Your task to perform on an android device: open app "Facebook Messenger" (install if not already installed) Image 0: 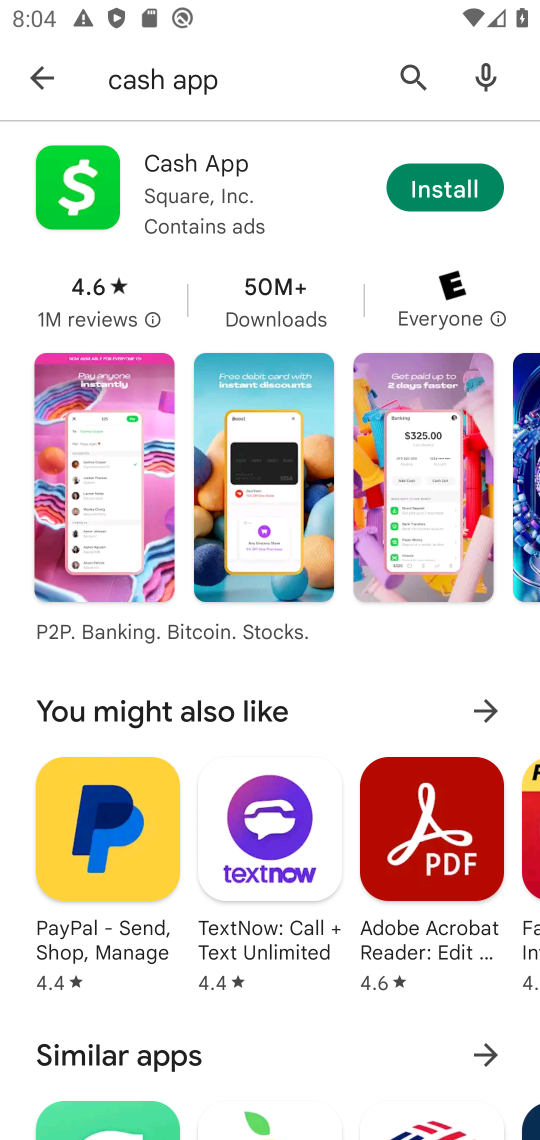
Step 0: press home button
Your task to perform on an android device: open app "Facebook Messenger" (install if not already installed) Image 1: 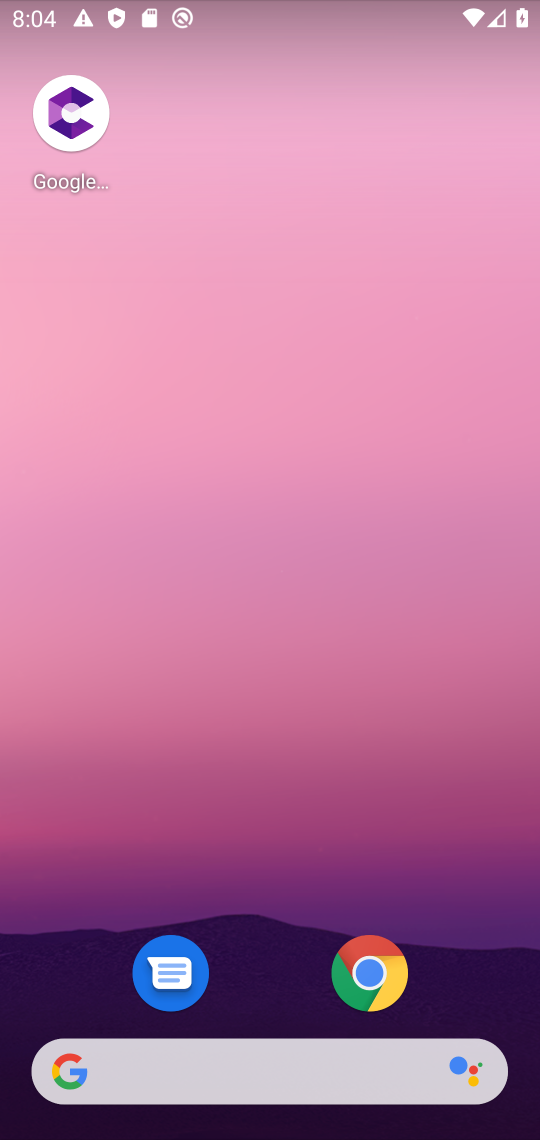
Step 1: drag from (343, 994) to (370, 112)
Your task to perform on an android device: open app "Facebook Messenger" (install if not already installed) Image 2: 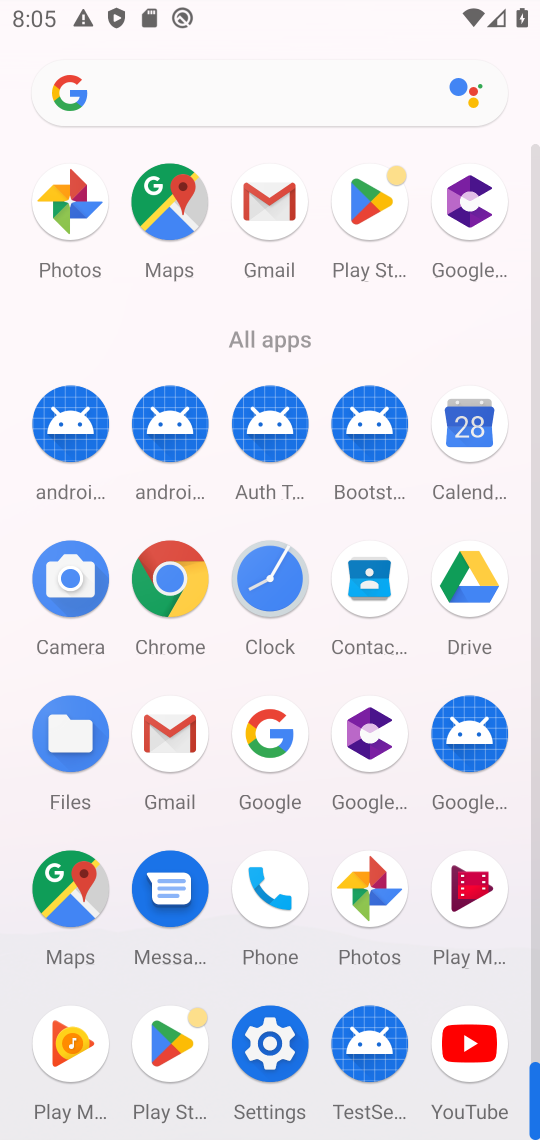
Step 2: click (366, 230)
Your task to perform on an android device: open app "Facebook Messenger" (install if not already installed) Image 3: 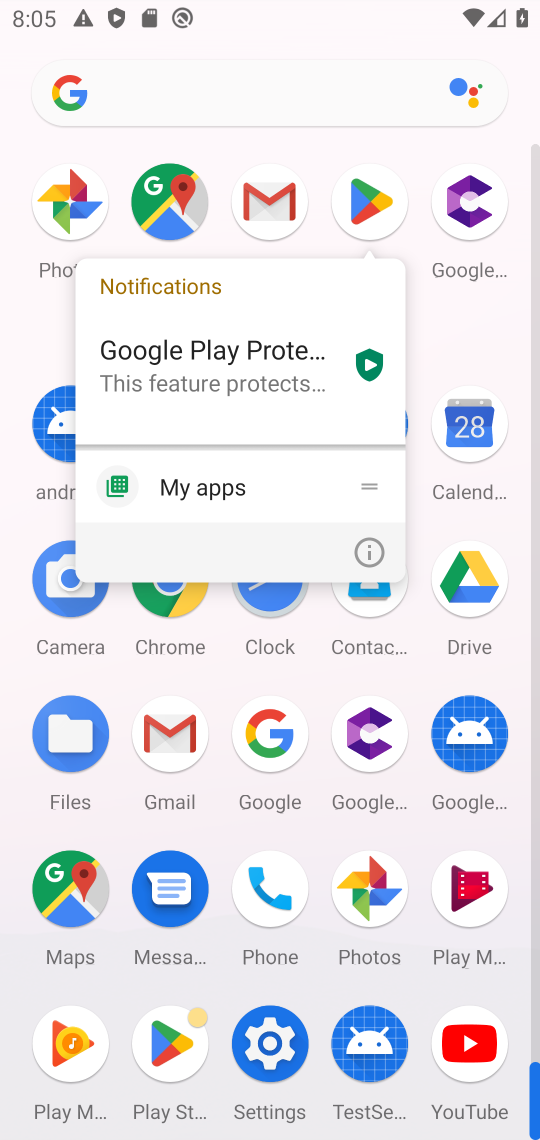
Step 3: click (367, 217)
Your task to perform on an android device: open app "Facebook Messenger" (install if not already installed) Image 4: 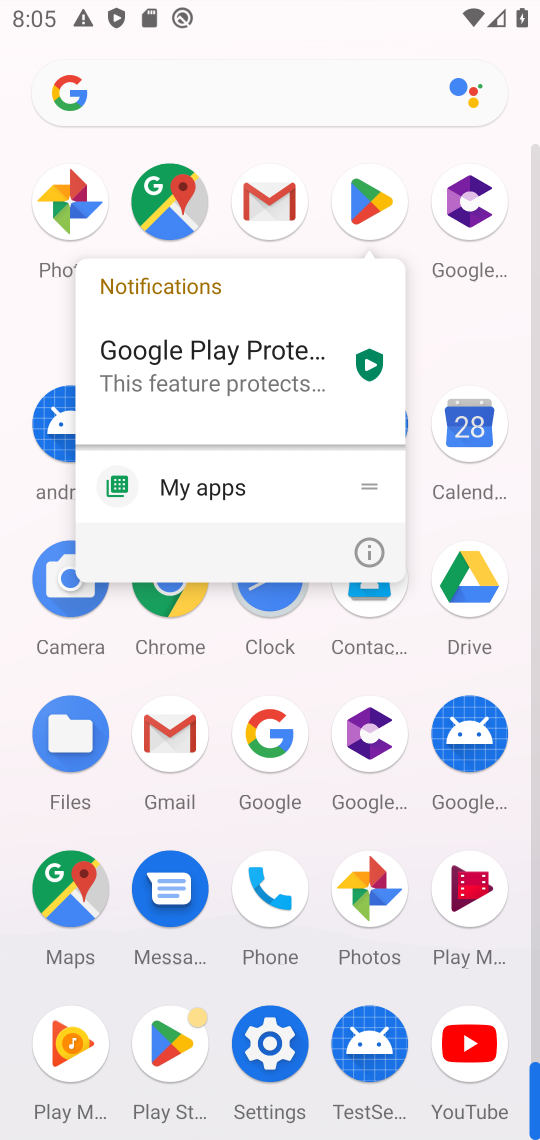
Step 4: click (377, 188)
Your task to perform on an android device: open app "Facebook Messenger" (install if not already installed) Image 5: 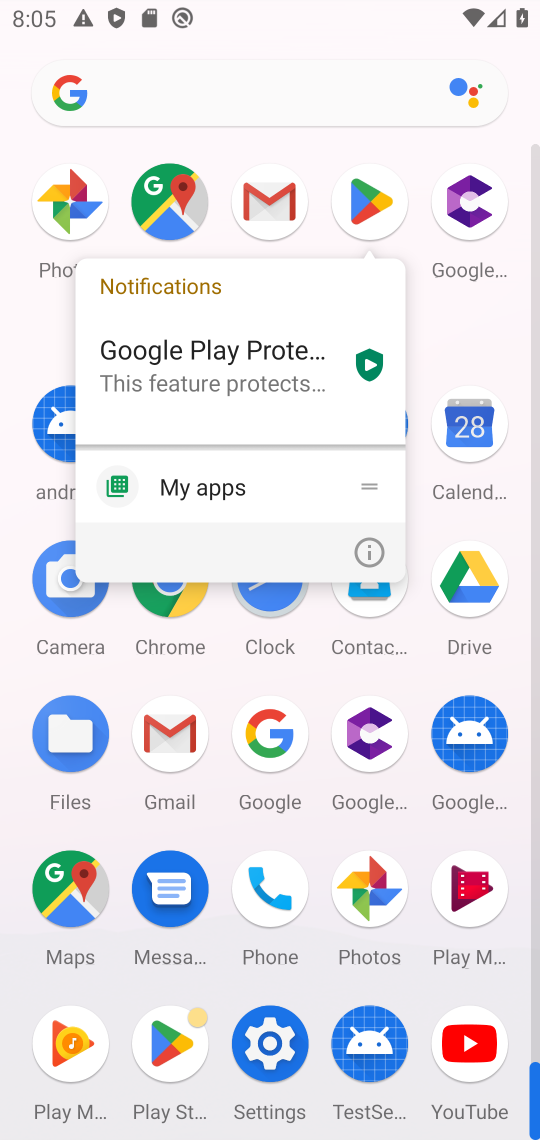
Step 5: click (376, 194)
Your task to perform on an android device: open app "Facebook Messenger" (install if not already installed) Image 6: 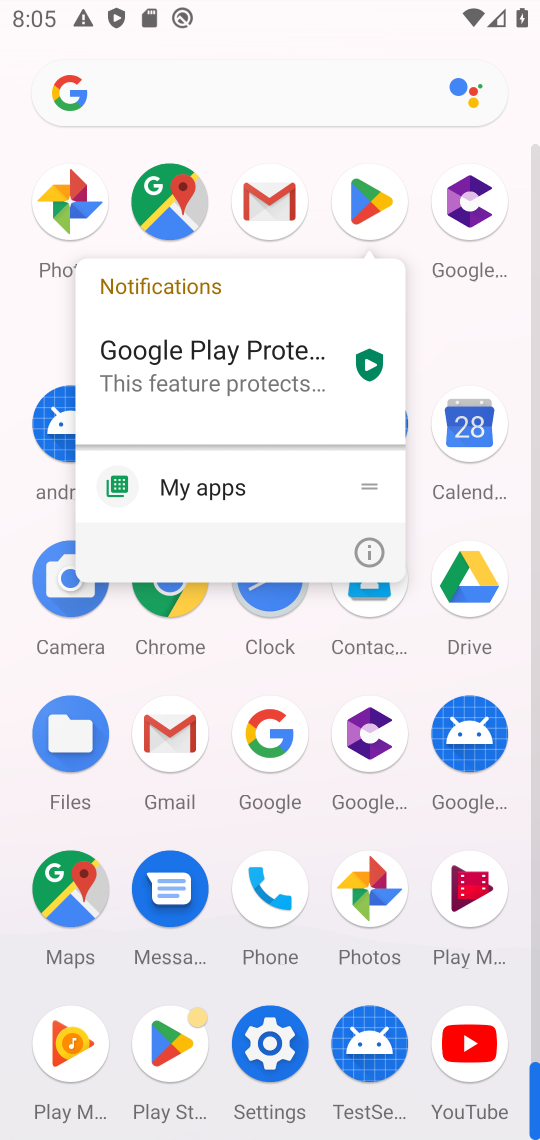
Step 6: click (391, 205)
Your task to perform on an android device: open app "Facebook Messenger" (install if not already installed) Image 7: 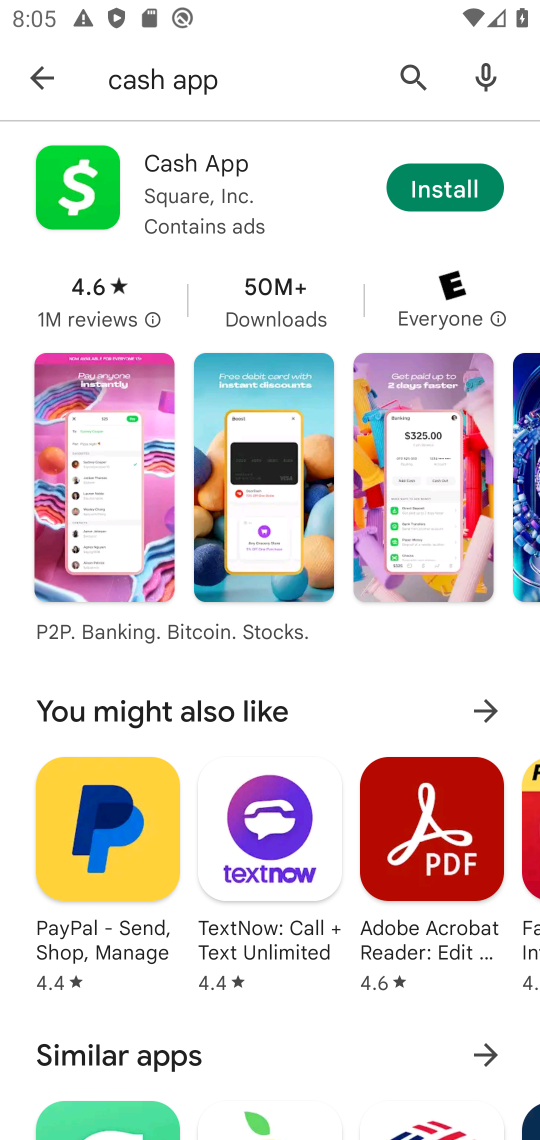
Step 7: click (55, 81)
Your task to perform on an android device: open app "Facebook Messenger" (install if not already installed) Image 8: 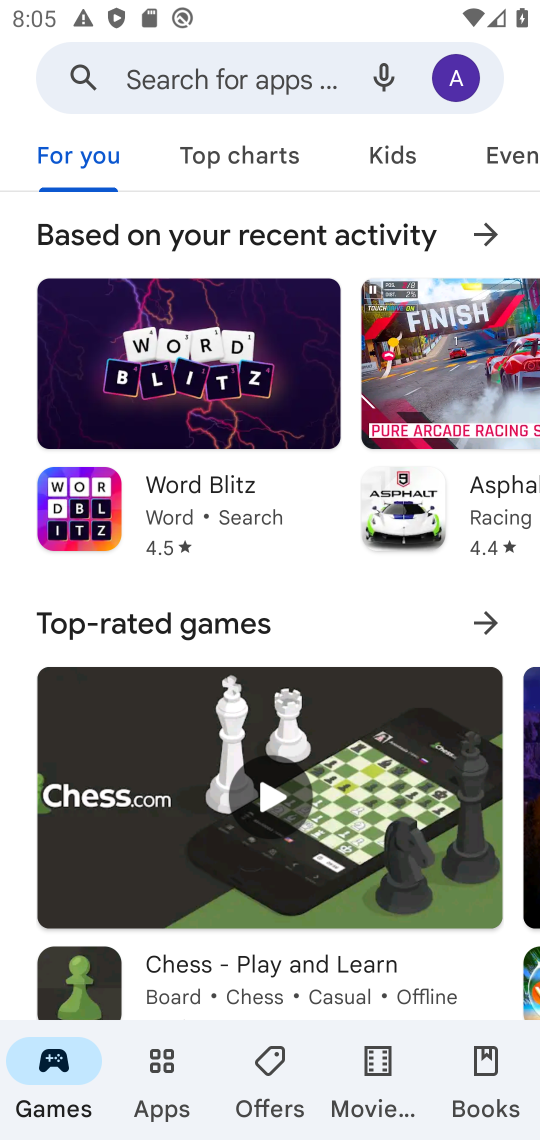
Step 8: click (291, 85)
Your task to perform on an android device: open app "Facebook Messenger" (install if not already installed) Image 9: 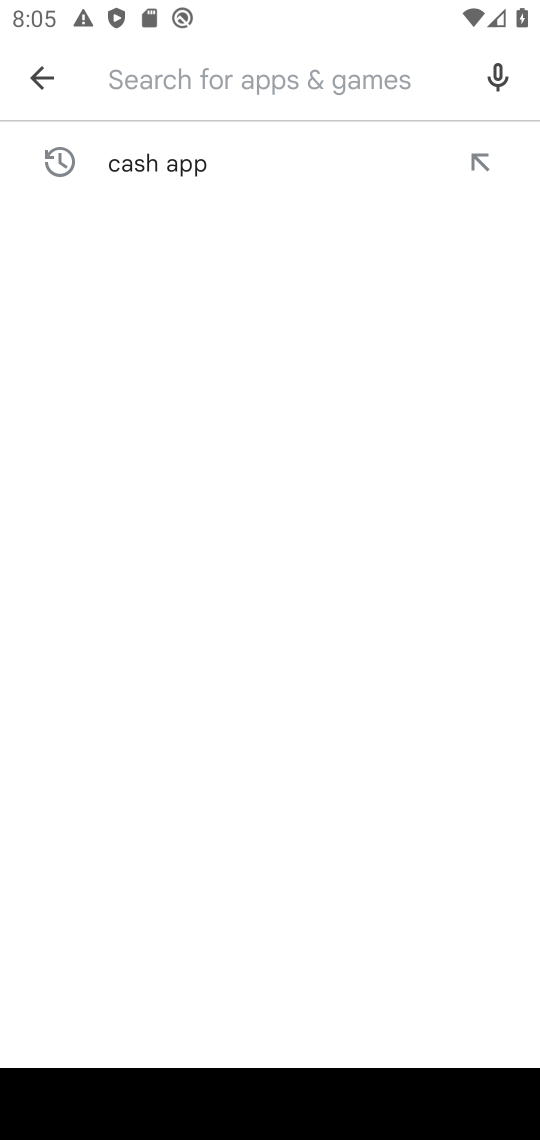
Step 9: type "Facebook Messenger"
Your task to perform on an android device: open app "Facebook Messenger" (install if not already installed) Image 10: 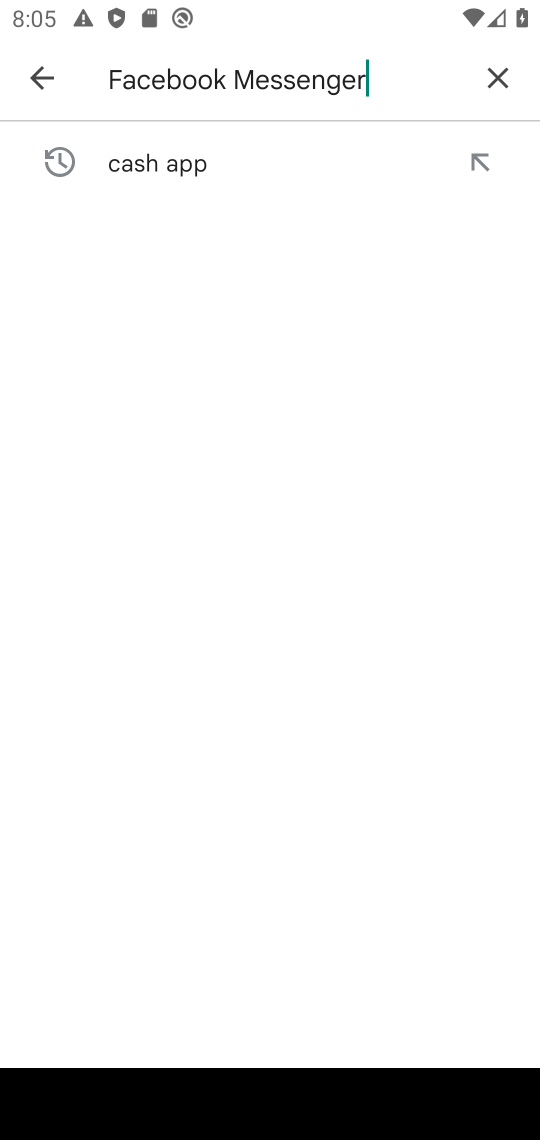
Step 10: type ""
Your task to perform on an android device: open app "Facebook Messenger" (install if not already installed) Image 11: 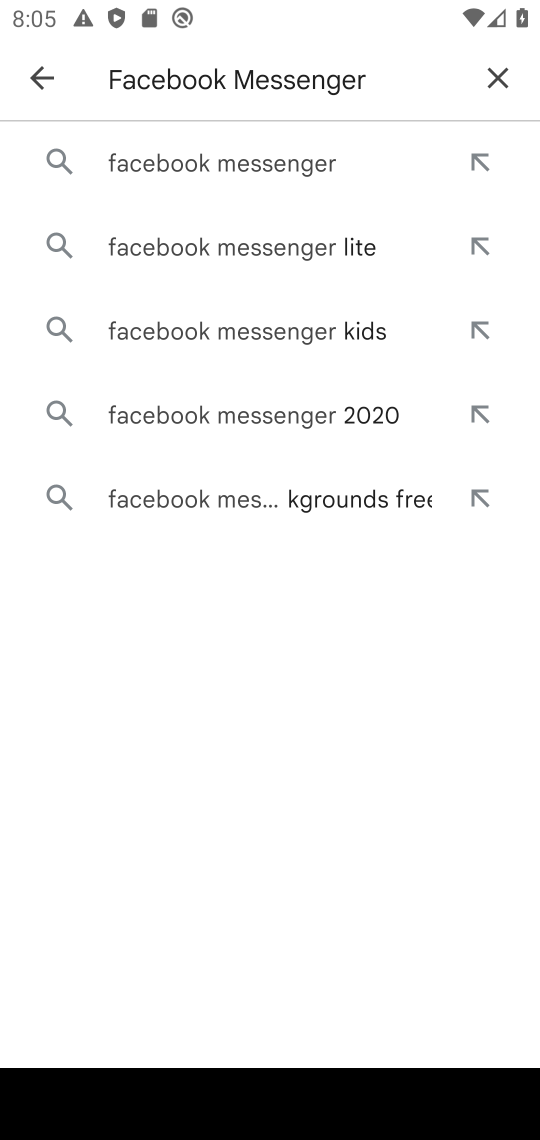
Step 11: click (306, 160)
Your task to perform on an android device: open app "Facebook Messenger" (install if not already installed) Image 12: 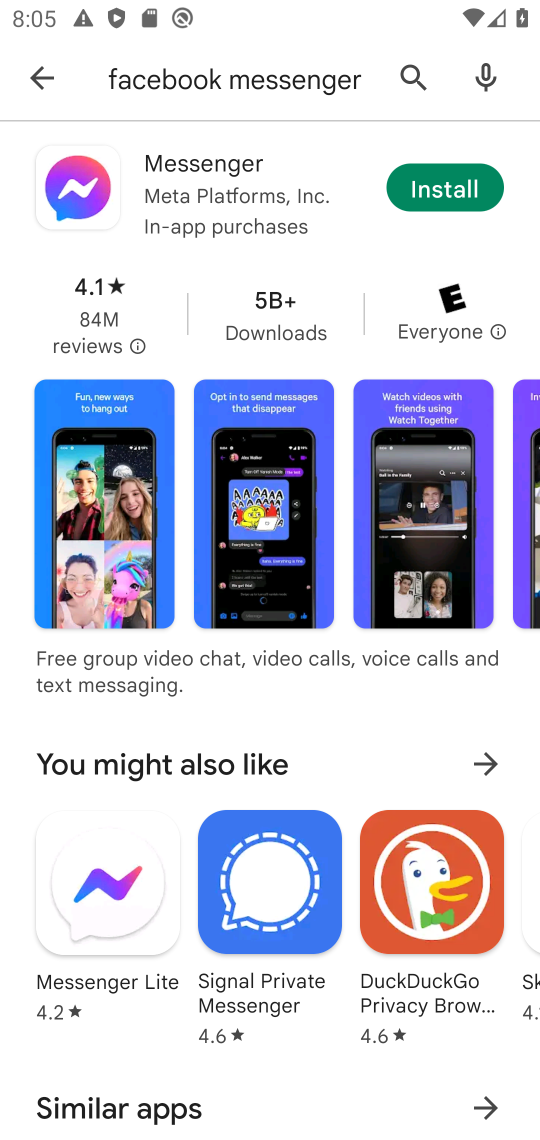
Step 12: click (457, 191)
Your task to perform on an android device: open app "Facebook Messenger" (install if not already installed) Image 13: 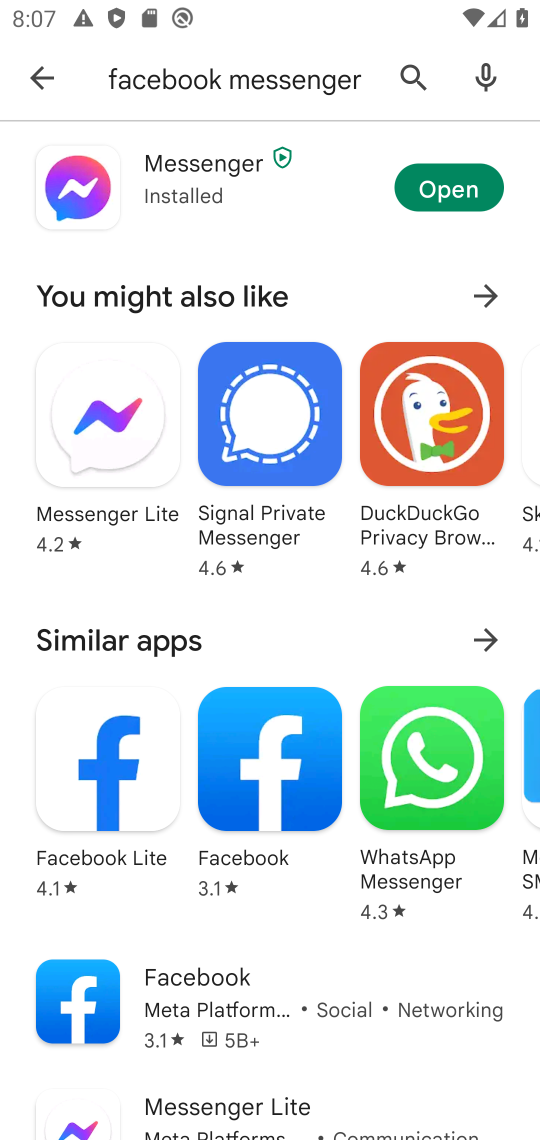
Step 13: click (472, 193)
Your task to perform on an android device: open app "Facebook Messenger" (install if not already installed) Image 14: 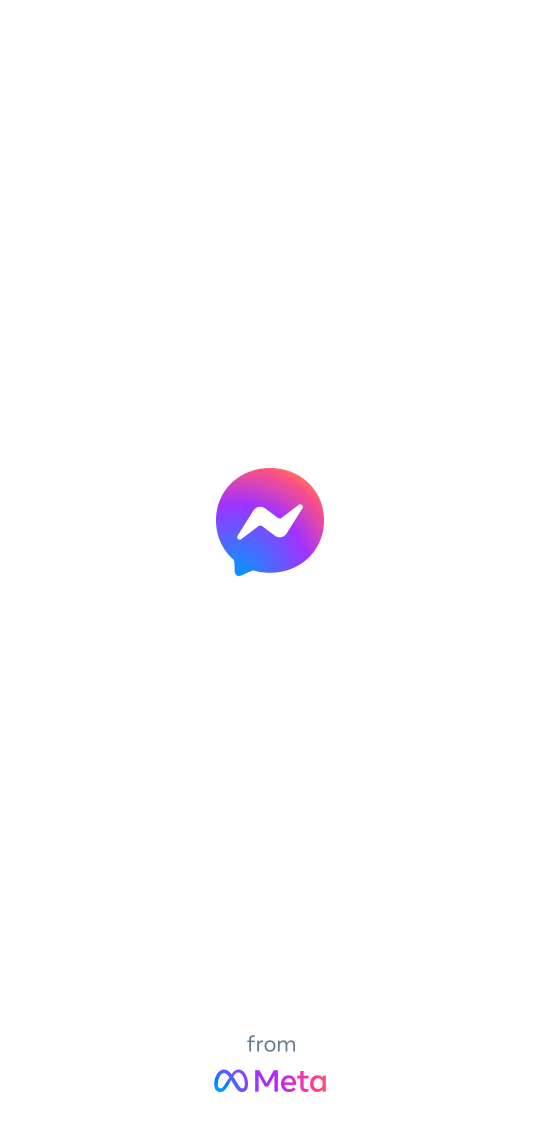
Step 14: task complete